Your task to perform on an android device: What's the weather going to be this weekend? Image 0: 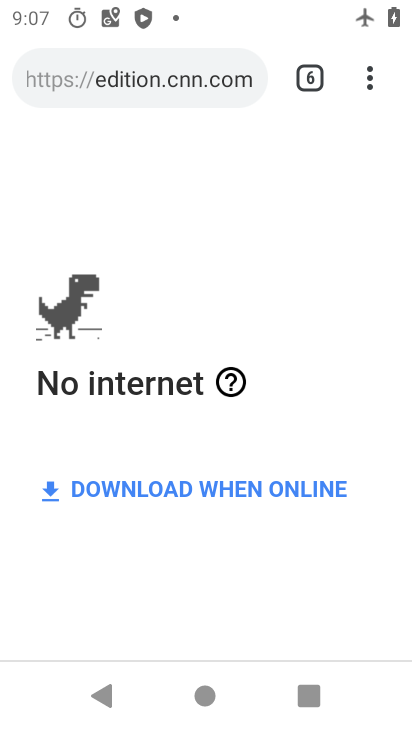
Step 0: press home button
Your task to perform on an android device: What's the weather going to be this weekend? Image 1: 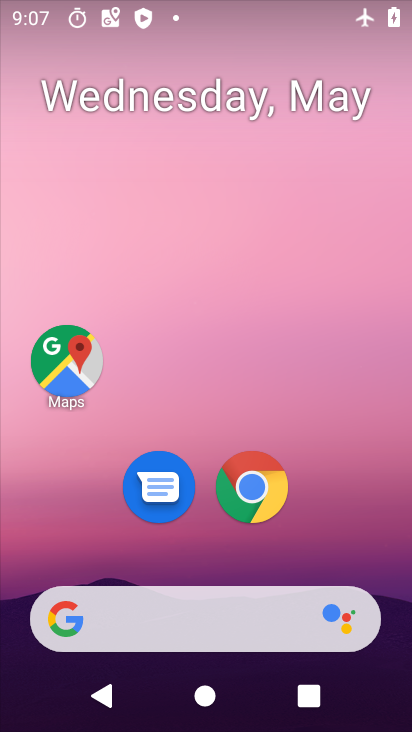
Step 1: drag from (190, 567) to (204, 276)
Your task to perform on an android device: What's the weather going to be this weekend? Image 2: 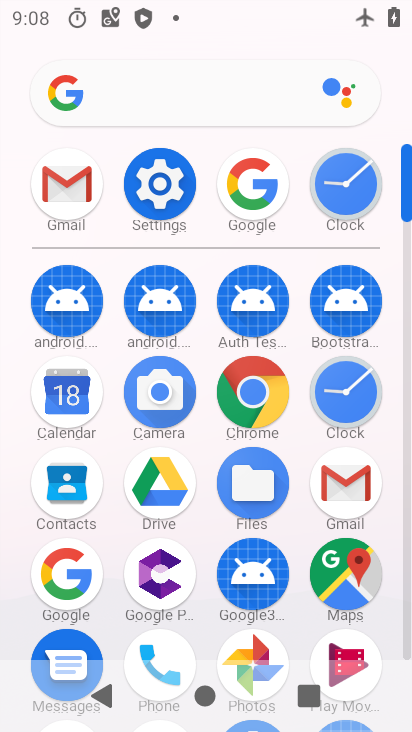
Step 2: click (86, 587)
Your task to perform on an android device: What's the weather going to be this weekend? Image 3: 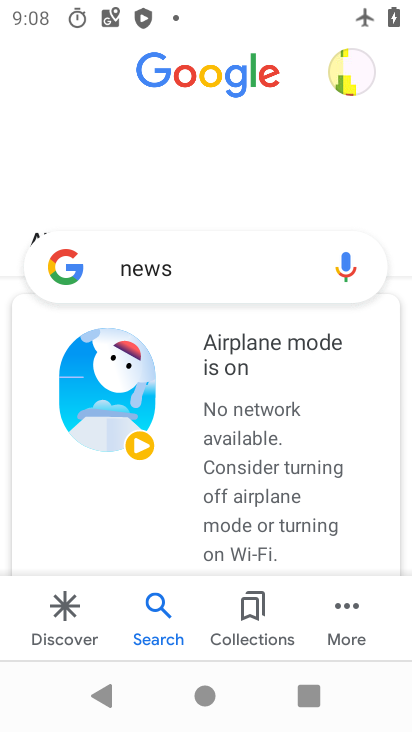
Step 3: click (186, 277)
Your task to perform on an android device: What's the weather going to be this weekend? Image 4: 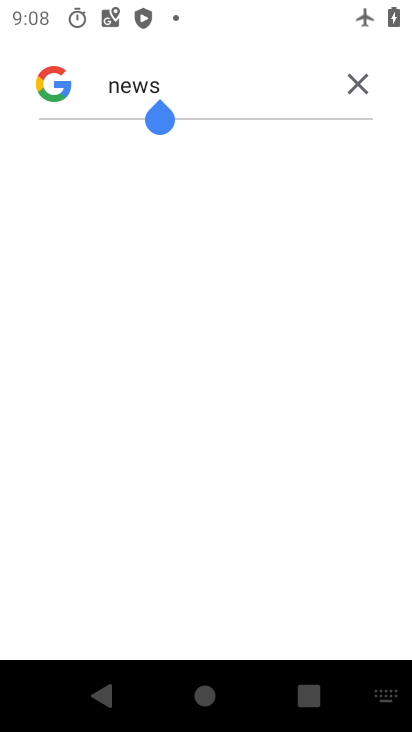
Step 4: click (357, 80)
Your task to perform on an android device: What's the weather going to be this weekend? Image 5: 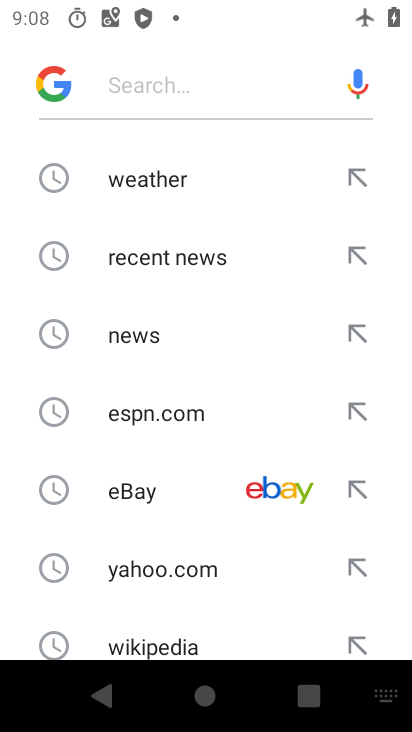
Step 5: click (186, 166)
Your task to perform on an android device: What's the weather going to be this weekend? Image 6: 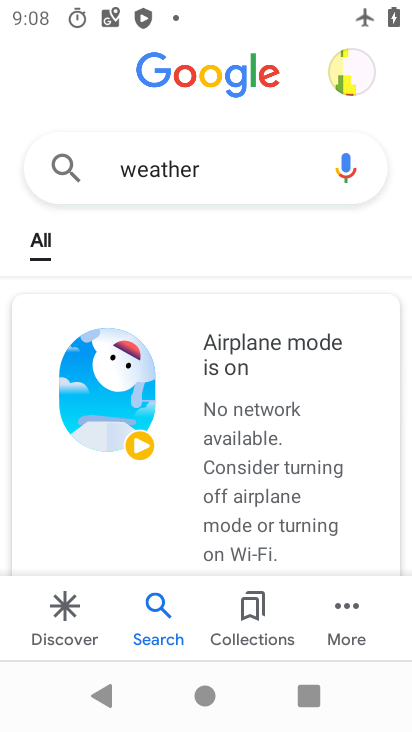
Step 6: task complete